Your task to perform on an android device: find which apps use the phone's location Image 0: 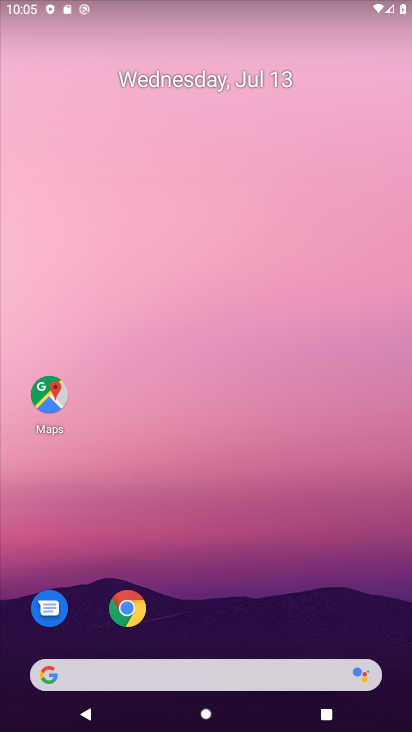
Step 0: press home button
Your task to perform on an android device: find which apps use the phone's location Image 1: 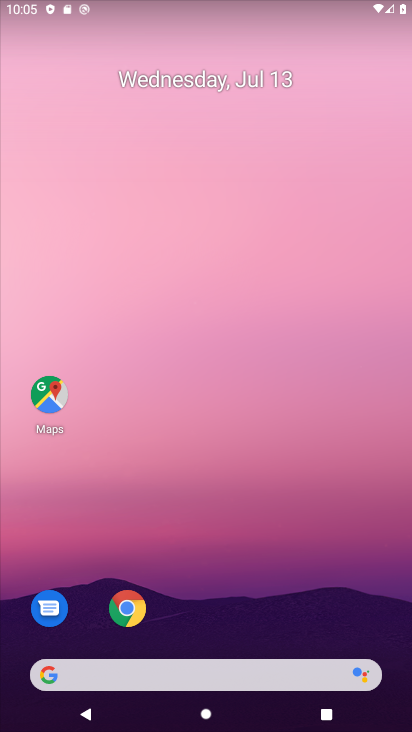
Step 1: drag from (330, 615) to (321, 665)
Your task to perform on an android device: find which apps use the phone's location Image 2: 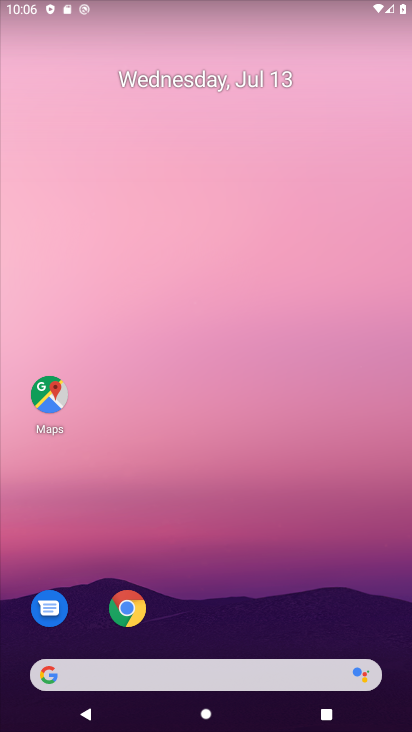
Step 2: drag from (238, 552) to (395, 0)
Your task to perform on an android device: find which apps use the phone's location Image 3: 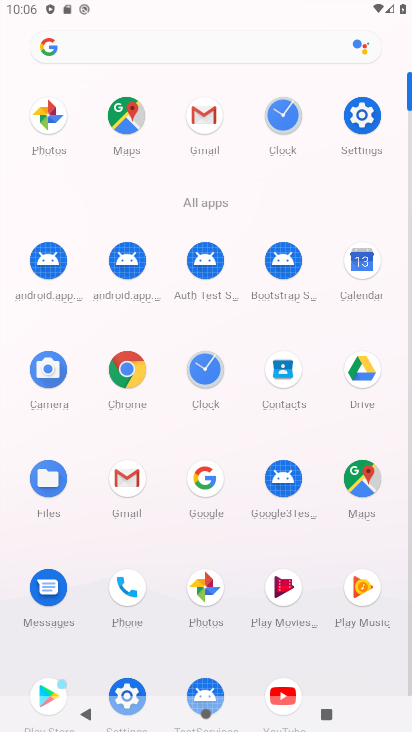
Step 3: click (195, 198)
Your task to perform on an android device: find which apps use the phone's location Image 4: 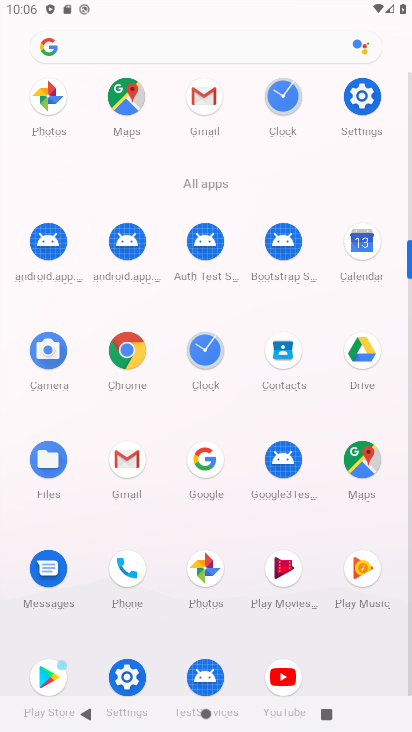
Step 4: click (359, 103)
Your task to perform on an android device: find which apps use the phone's location Image 5: 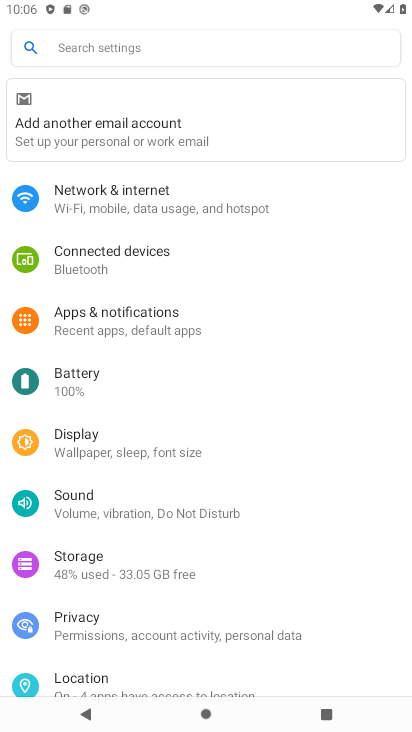
Step 5: click (122, 684)
Your task to perform on an android device: find which apps use the phone's location Image 6: 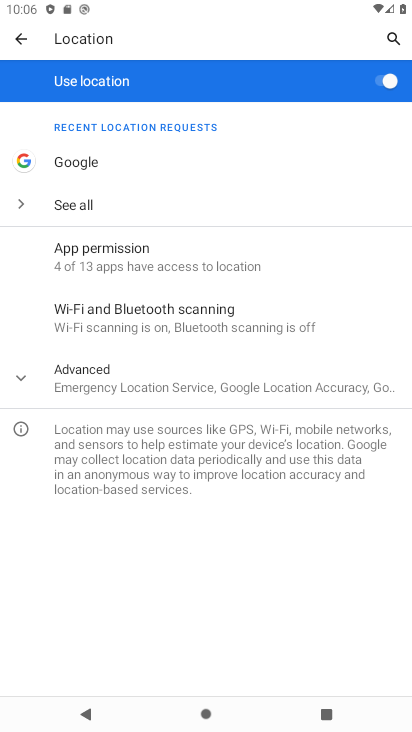
Step 6: click (123, 263)
Your task to perform on an android device: find which apps use the phone's location Image 7: 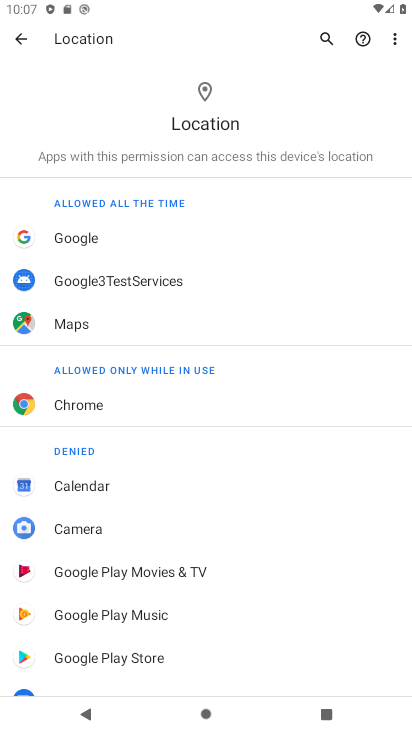
Step 7: task complete